Your task to perform on an android device: Open Yahoo.com Image 0: 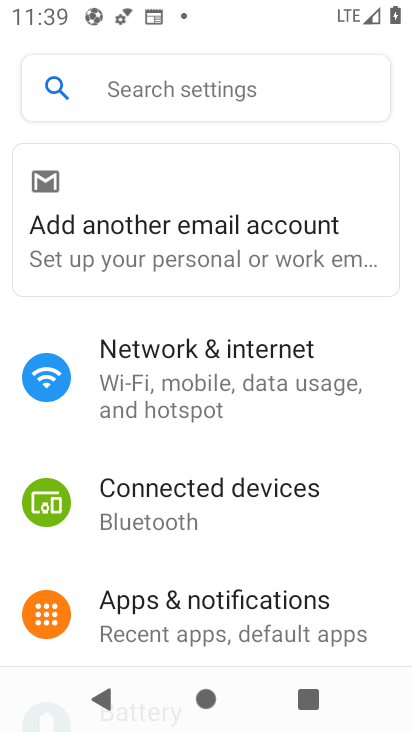
Step 0: press home button
Your task to perform on an android device: Open Yahoo.com Image 1: 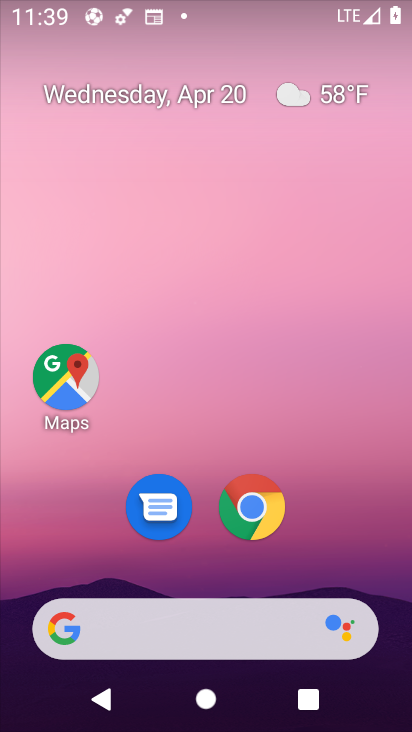
Step 1: drag from (344, 543) to (368, 79)
Your task to perform on an android device: Open Yahoo.com Image 2: 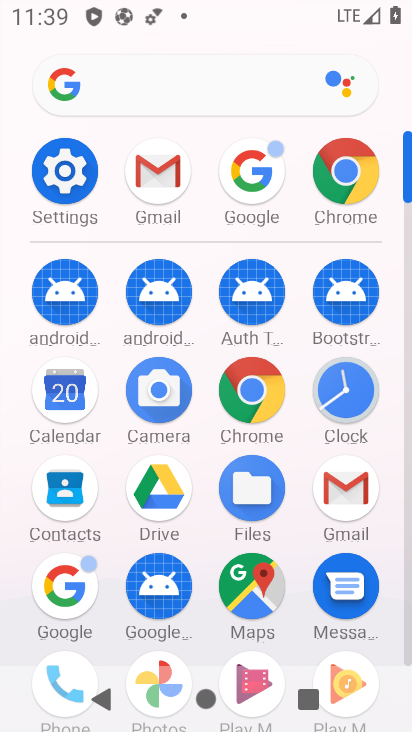
Step 2: click (241, 381)
Your task to perform on an android device: Open Yahoo.com Image 3: 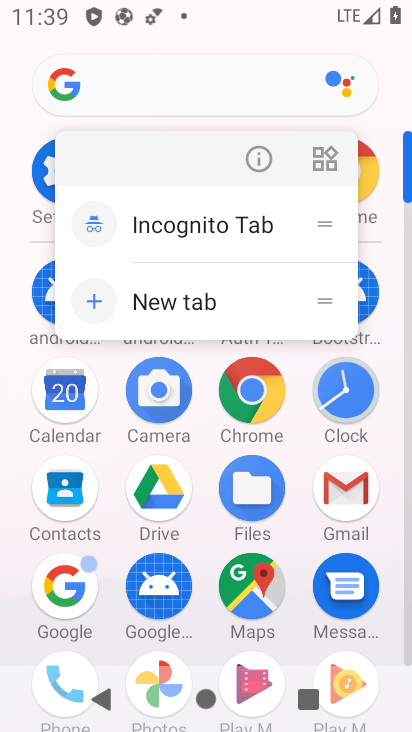
Step 3: click (268, 371)
Your task to perform on an android device: Open Yahoo.com Image 4: 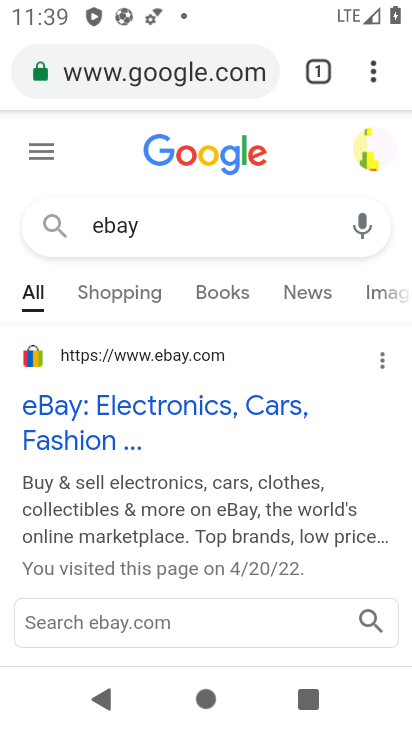
Step 4: click (200, 232)
Your task to perform on an android device: Open Yahoo.com Image 5: 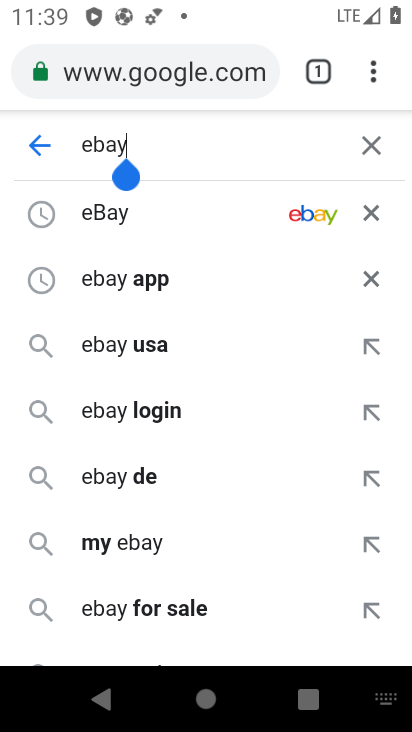
Step 5: click (372, 150)
Your task to perform on an android device: Open Yahoo.com Image 6: 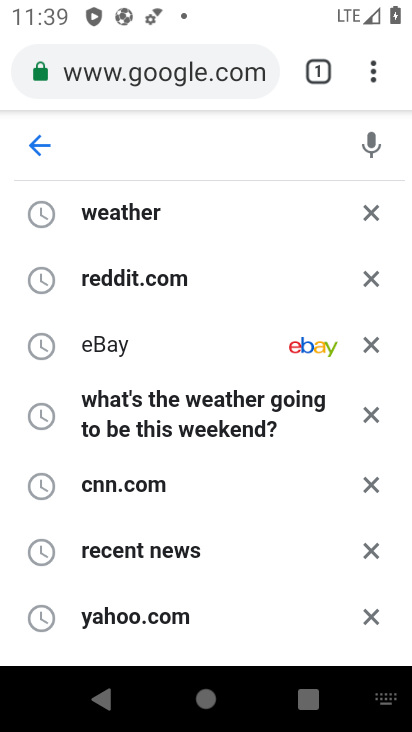
Step 6: click (157, 617)
Your task to perform on an android device: Open Yahoo.com Image 7: 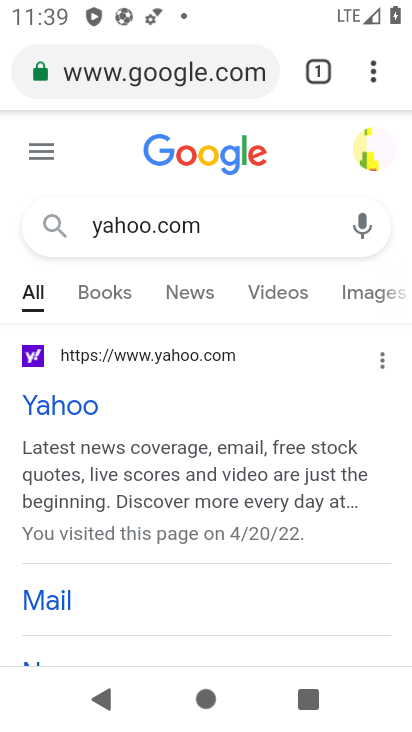
Step 7: task complete